Your task to perform on an android device: Is it going to rain this weekend? Image 0: 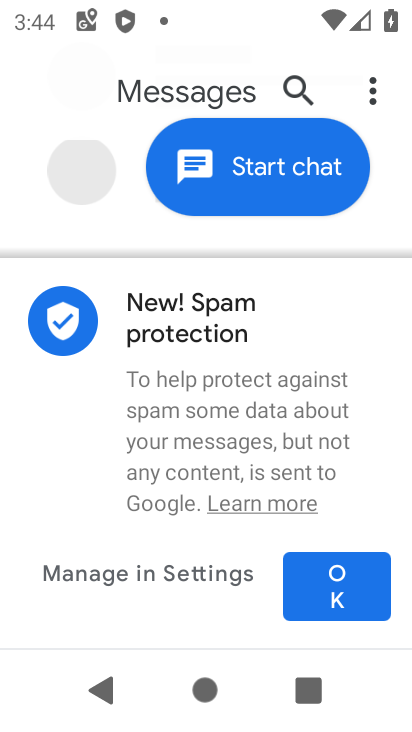
Step 0: task complete